Your task to perform on an android device: Search for pizza restaurants on Maps Image 0: 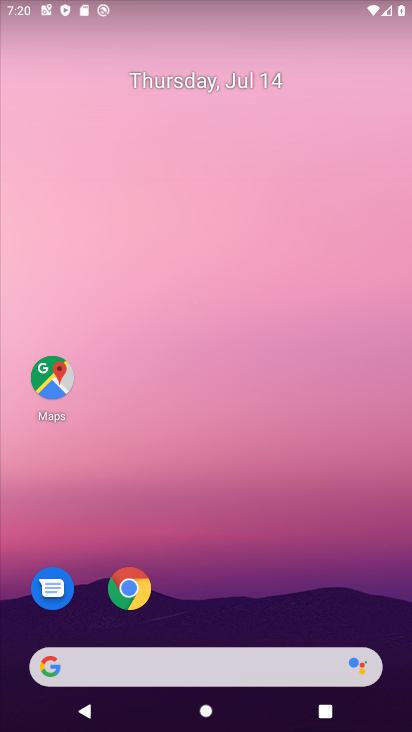
Step 0: drag from (371, 611) to (228, 23)
Your task to perform on an android device: Search for pizza restaurants on Maps Image 1: 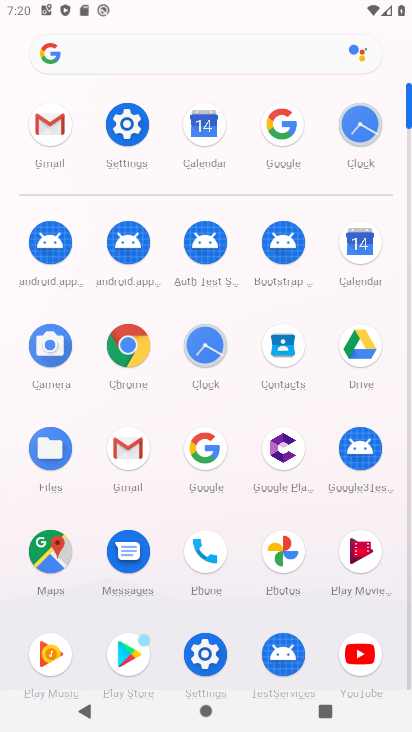
Step 1: click (59, 552)
Your task to perform on an android device: Search for pizza restaurants on Maps Image 2: 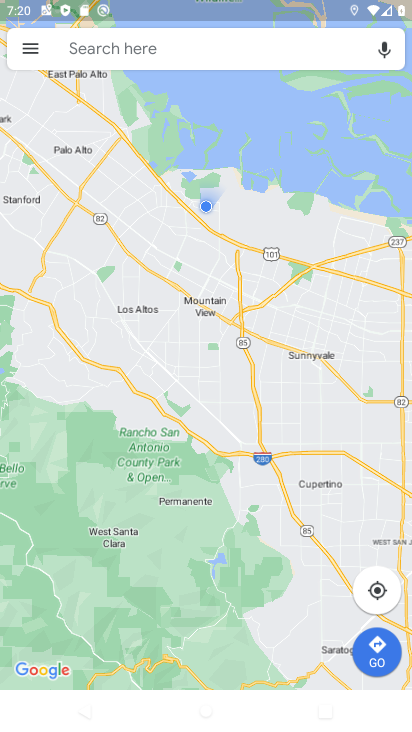
Step 2: click (139, 39)
Your task to perform on an android device: Search for pizza restaurants on Maps Image 3: 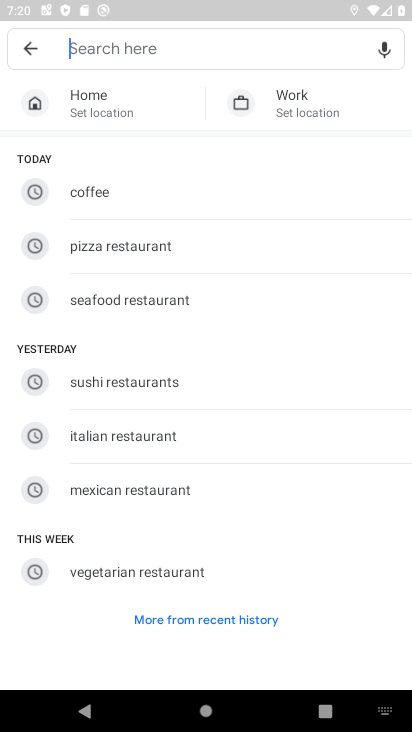
Step 3: click (88, 248)
Your task to perform on an android device: Search for pizza restaurants on Maps Image 4: 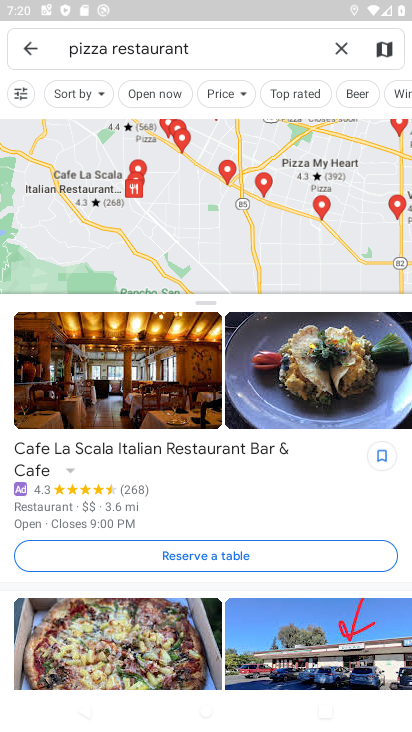
Step 4: task complete